Your task to perform on an android device: toggle priority inbox in the gmail app Image 0: 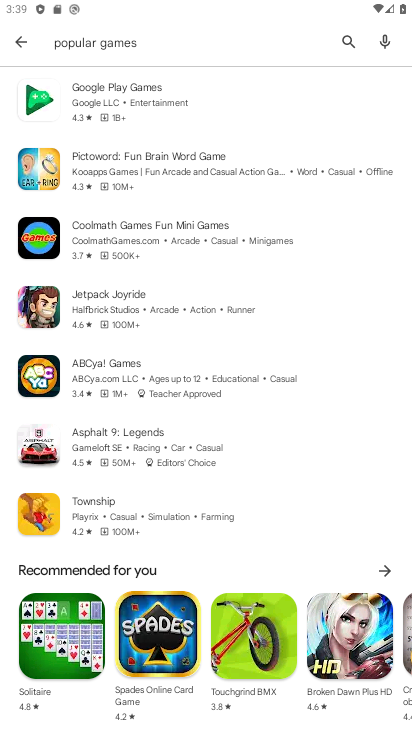
Step 0: press home button
Your task to perform on an android device: toggle priority inbox in the gmail app Image 1: 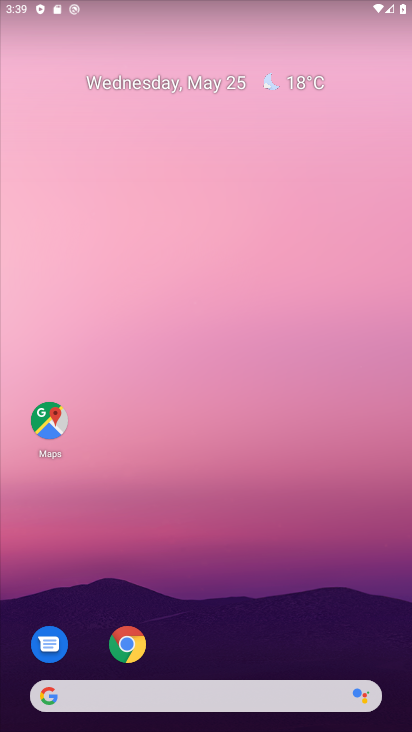
Step 1: drag from (217, 615) to (166, 257)
Your task to perform on an android device: toggle priority inbox in the gmail app Image 2: 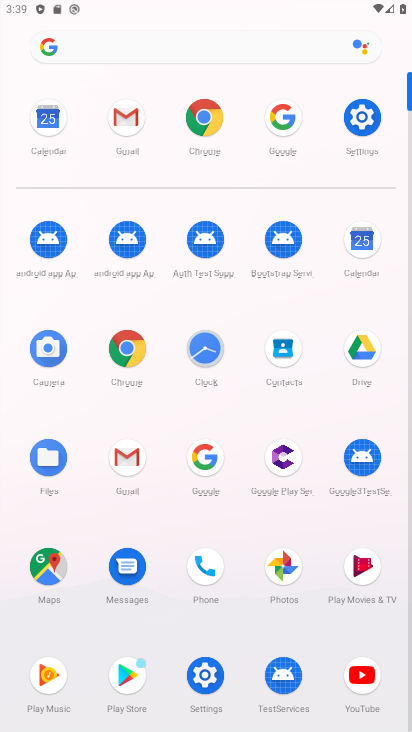
Step 2: click (125, 116)
Your task to perform on an android device: toggle priority inbox in the gmail app Image 3: 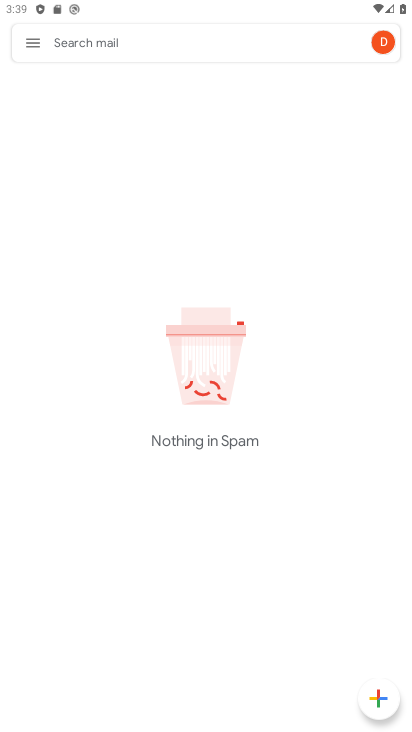
Step 3: click (28, 39)
Your task to perform on an android device: toggle priority inbox in the gmail app Image 4: 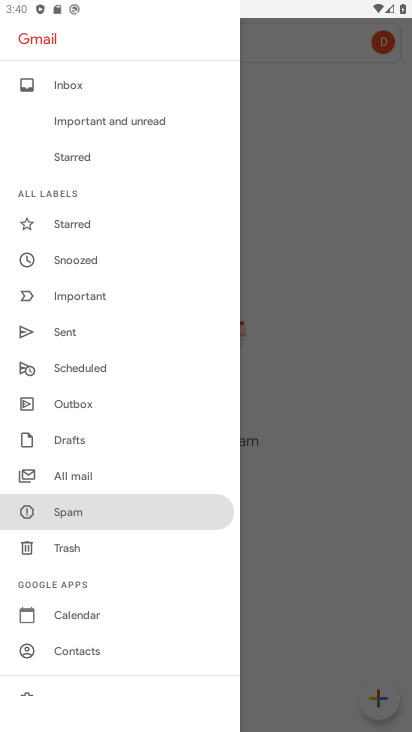
Step 4: click (135, 470)
Your task to perform on an android device: toggle priority inbox in the gmail app Image 5: 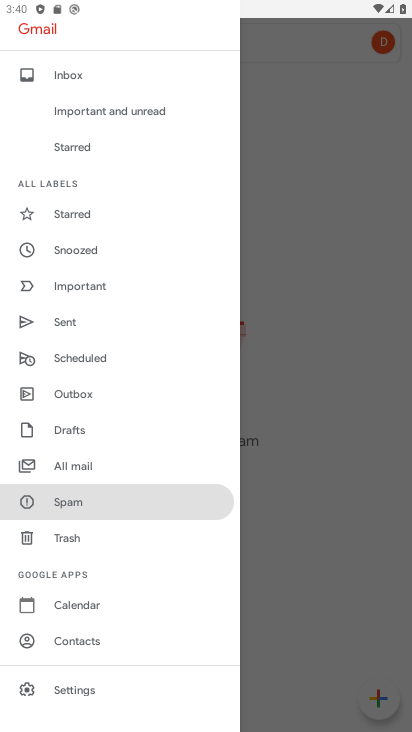
Step 5: drag from (132, 550) to (168, 437)
Your task to perform on an android device: toggle priority inbox in the gmail app Image 6: 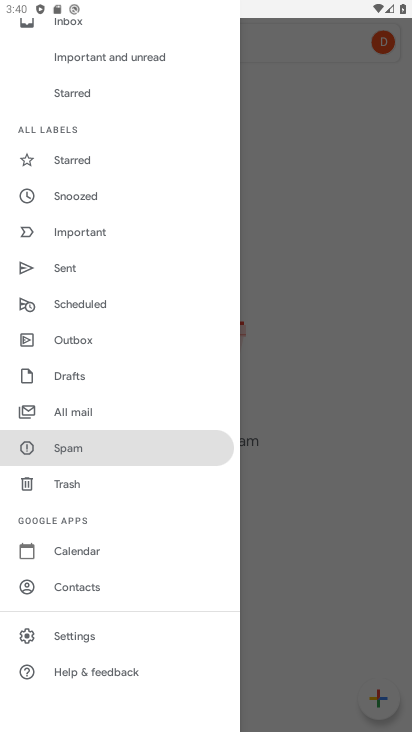
Step 6: click (79, 642)
Your task to perform on an android device: toggle priority inbox in the gmail app Image 7: 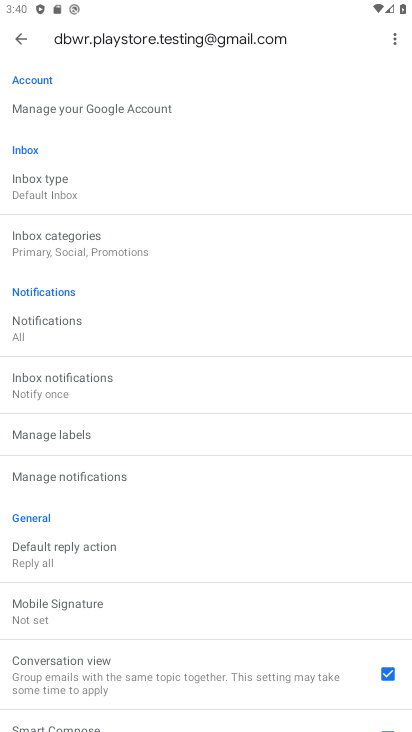
Step 7: click (50, 194)
Your task to perform on an android device: toggle priority inbox in the gmail app Image 8: 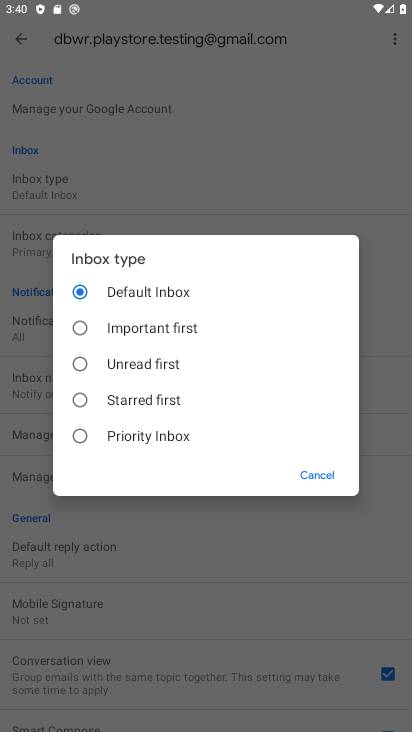
Step 8: click (79, 439)
Your task to perform on an android device: toggle priority inbox in the gmail app Image 9: 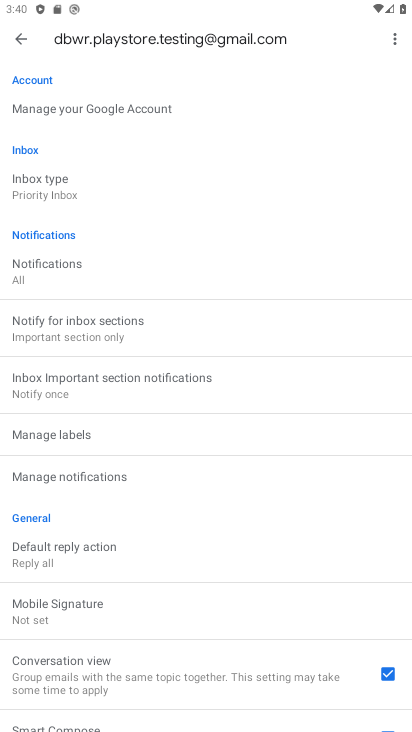
Step 9: task complete